Your task to perform on an android device: all mails in gmail Image 0: 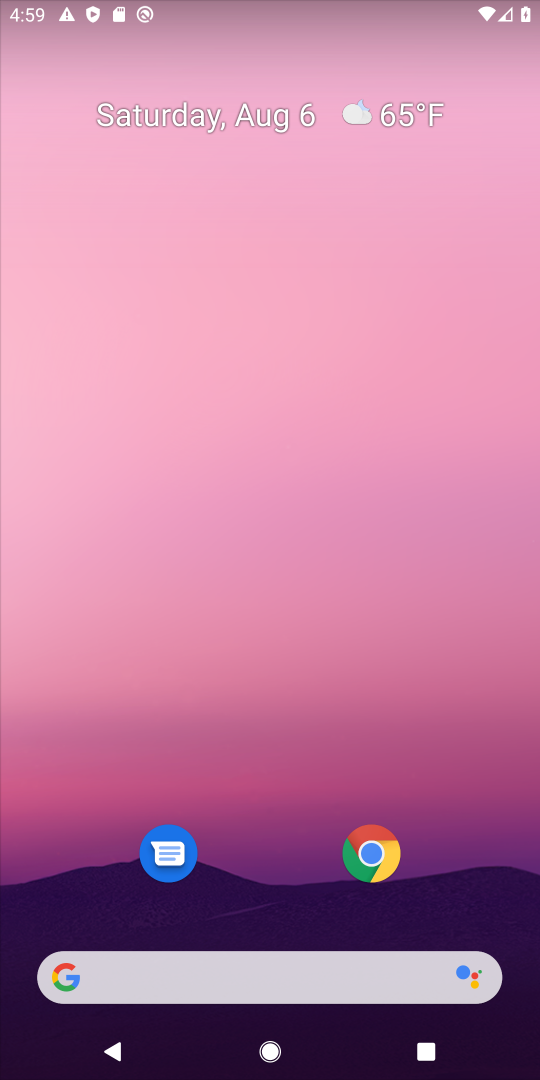
Step 0: drag from (294, 864) to (4, 18)
Your task to perform on an android device: all mails in gmail Image 1: 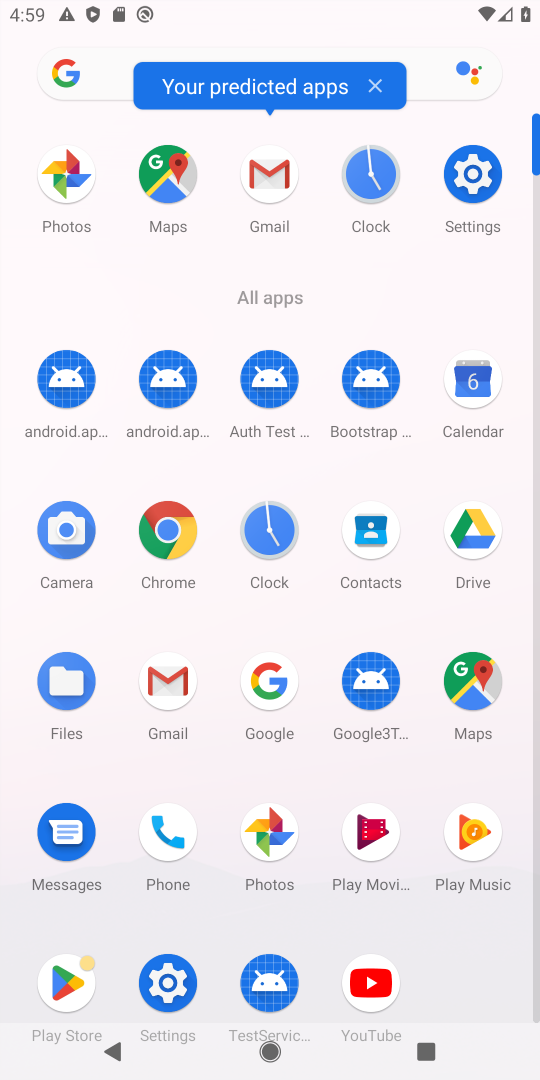
Step 1: click (163, 674)
Your task to perform on an android device: all mails in gmail Image 2: 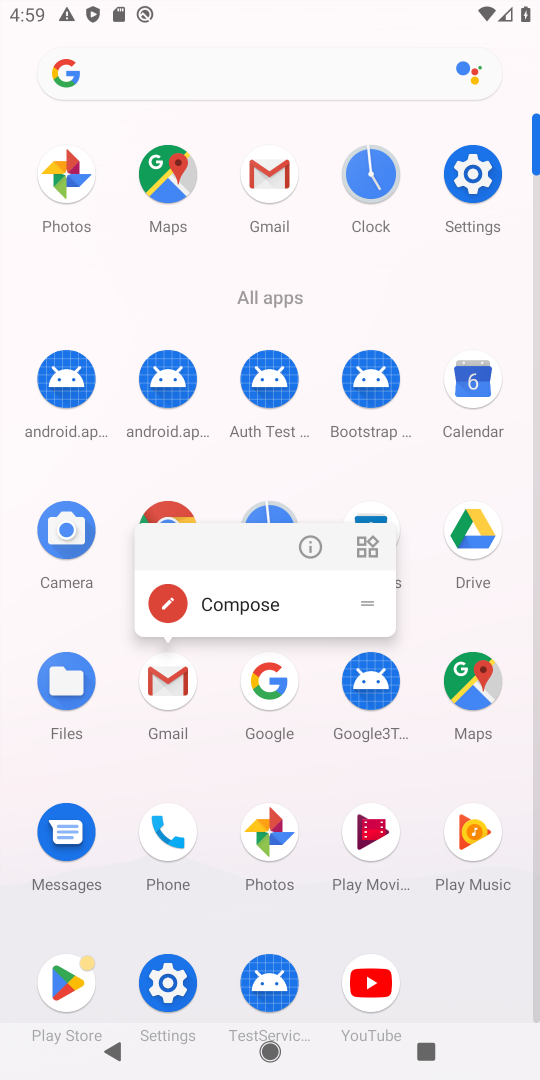
Step 2: click (164, 687)
Your task to perform on an android device: all mails in gmail Image 3: 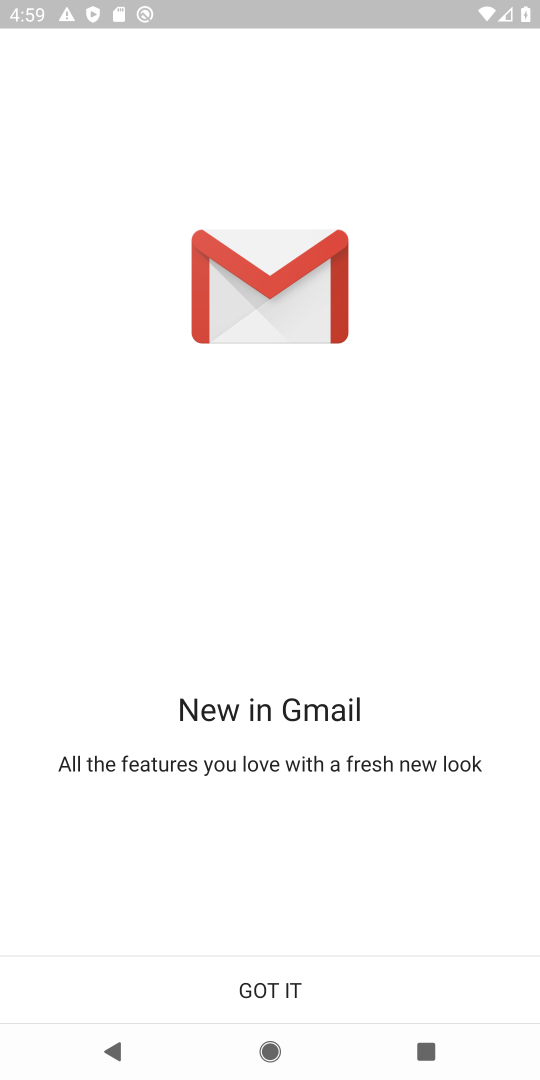
Step 3: click (242, 991)
Your task to perform on an android device: all mails in gmail Image 4: 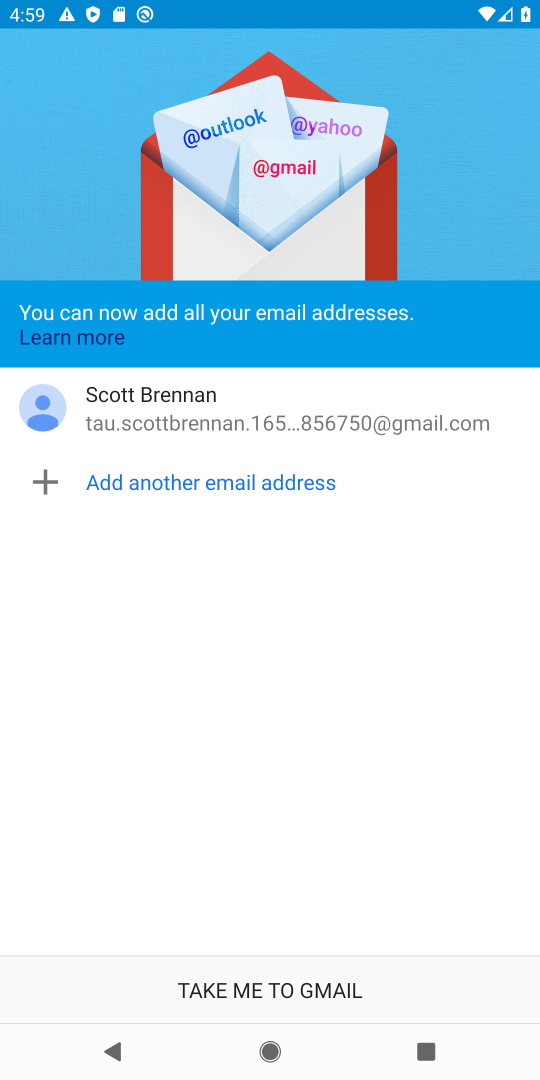
Step 4: click (310, 979)
Your task to perform on an android device: all mails in gmail Image 5: 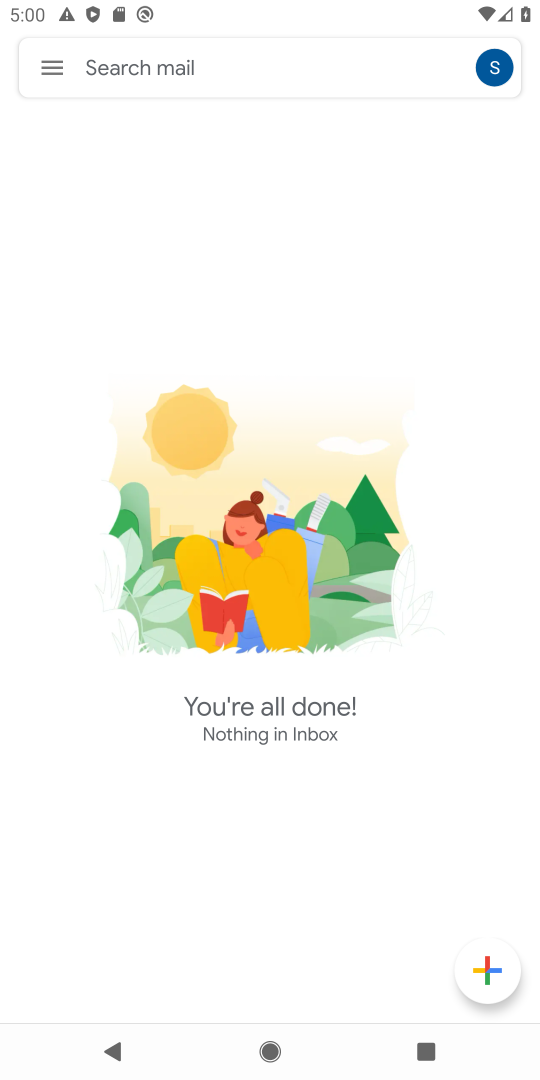
Step 5: click (46, 68)
Your task to perform on an android device: all mails in gmail Image 6: 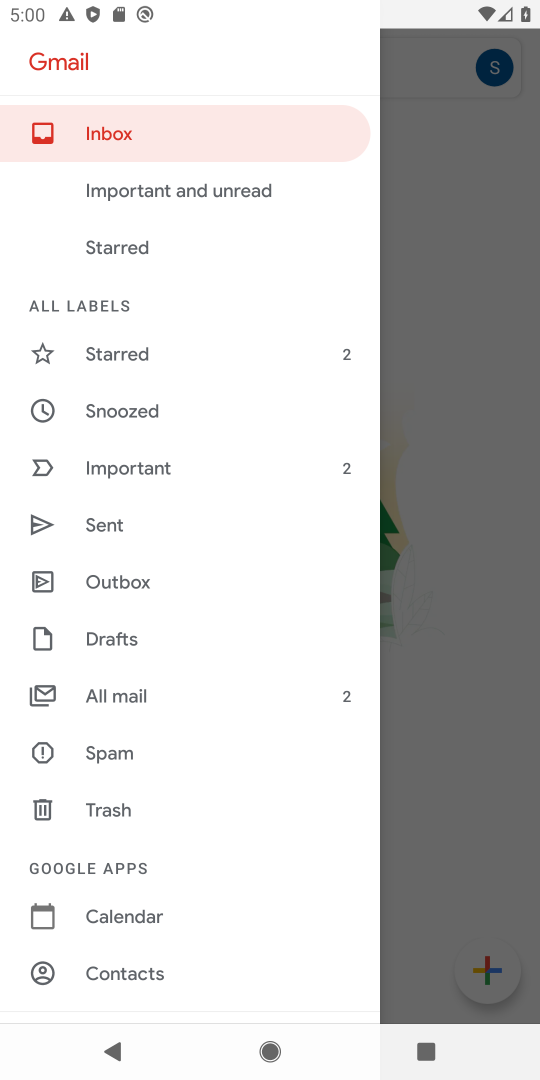
Step 6: click (98, 700)
Your task to perform on an android device: all mails in gmail Image 7: 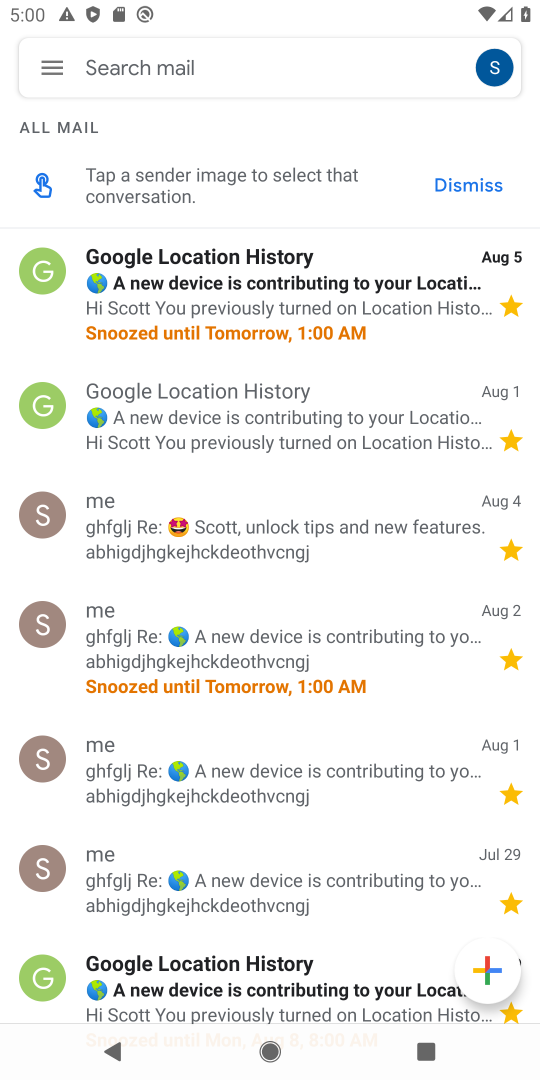
Step 7: task complete